Your task to perform on an android device: Go to Maps Image 0: 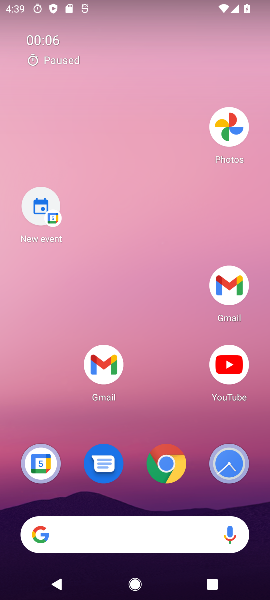
Step 0: drag from (173, 548) to (168, 127)
Your task to perform on an android device: Go to Maps Image 1: 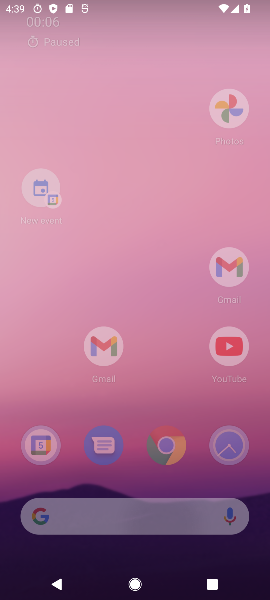
Step 1: drag from (181, 450) to (171, 109)
Your task to perform on an android device: Go to Maps Image 2: 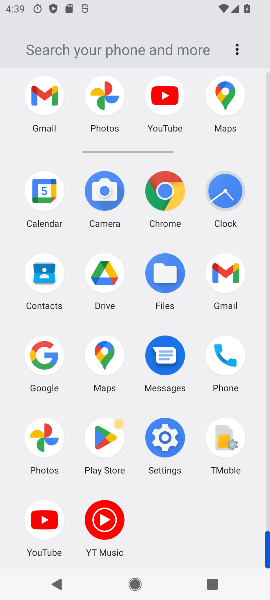
Step 2: click (229, 93)
Your task to perform on an android device: Go to Maps Image 3: 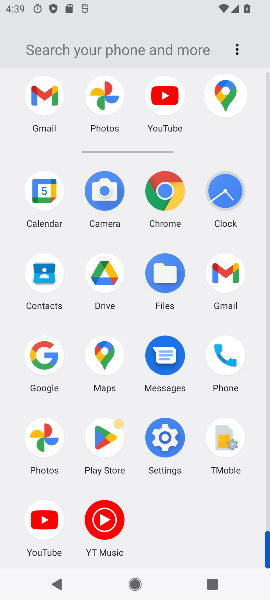
Step 3: click (226, 95)
Your task to perform on an android device: Go to Maps Image 4: 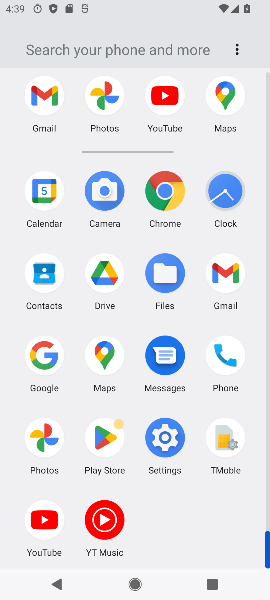
Step 4: click (229, 98)
Your task to perform on an android device: Go to Maps Image 5: 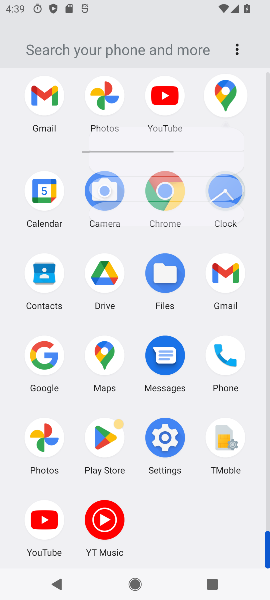
Step 5: click (229, 98)
Your task to perform on an android device: Go to Maps Image 6: 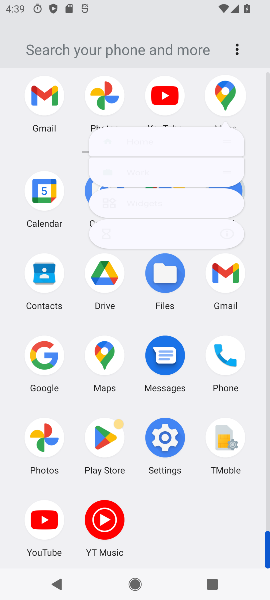
Step 6: click (229, 98)
Your task to perform on an android device: Go to Maps Image 7: 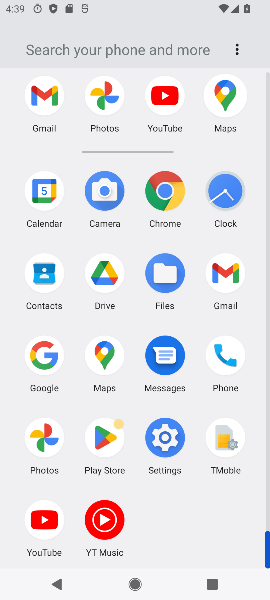
Step 7: click (229, 98)
Your task to perform on an android device: Go to Maps Image 8: 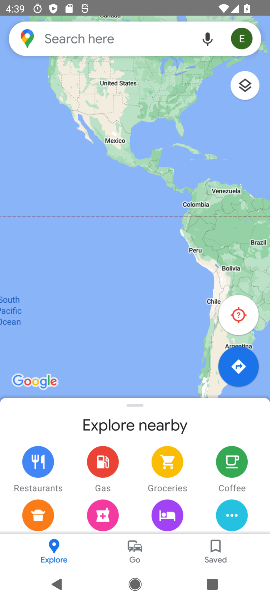
Step 8: click (229, 98)
Your task to perform on an android device: Go to Maps Image 9: 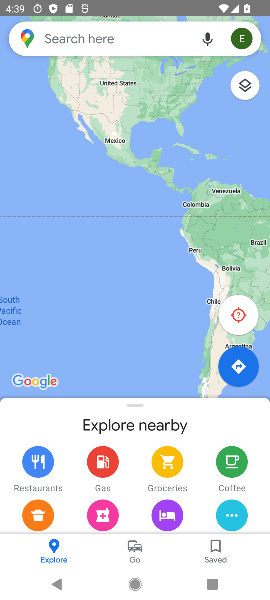
Step 9: task complete